Your task to perform on an android device: toggle translation in the chrome app Image 0: 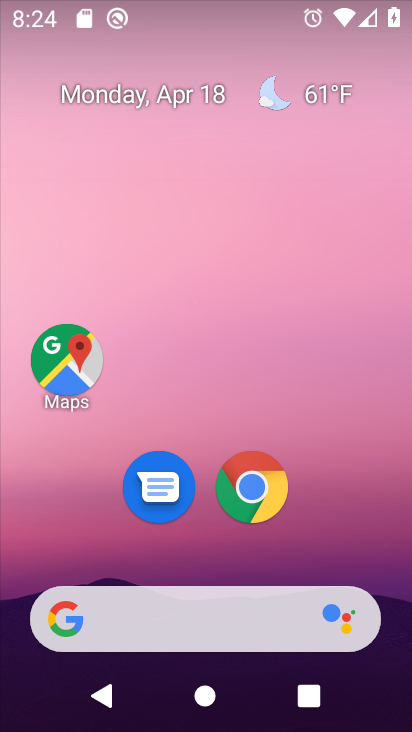
Step 0: click (248, 478)
Your task to perform on an android device: toggle translation in the chrome app Image 1: 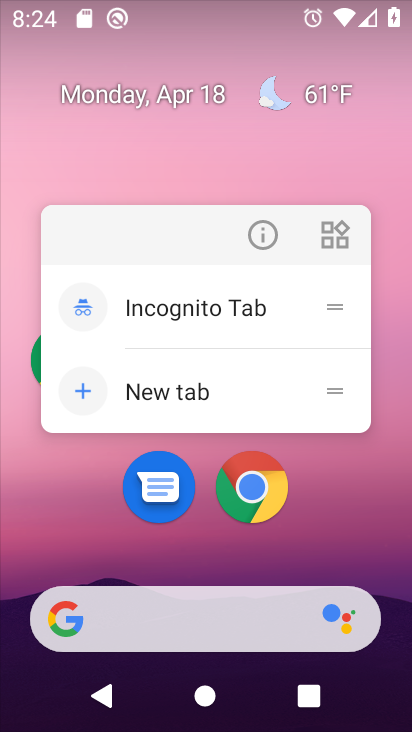
Step 1: click (306, 480)
Your task to perform on an android device: toggle translation in the chrome app Image 2: 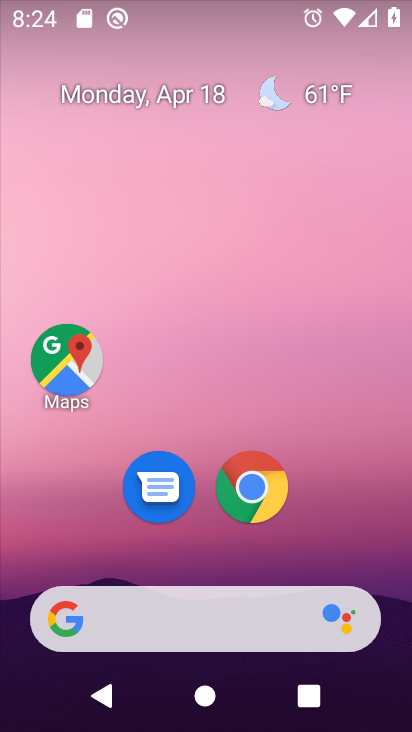
Step 2: click (375, 533)
Your task to perform on an android device: toggle translation in the chrome app Image 3: 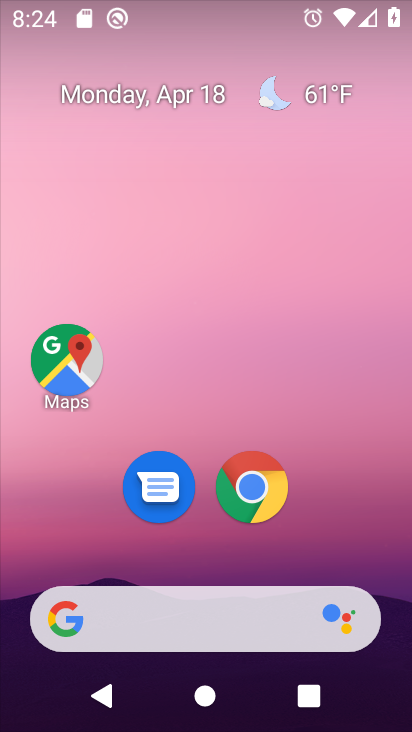
Step 3: click (250, 479)
Your task to perform on an android device: toggle translation in the chrome app Image 4: 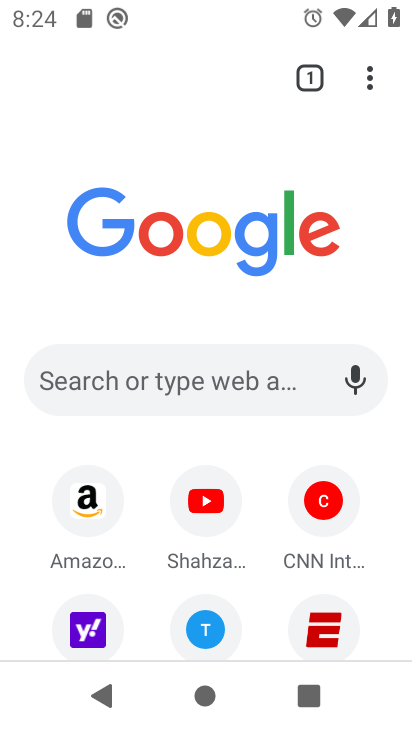
Step 4: click (367, 76)
Your task to perform on an android device: toggle translation in the chrome app Image 5: 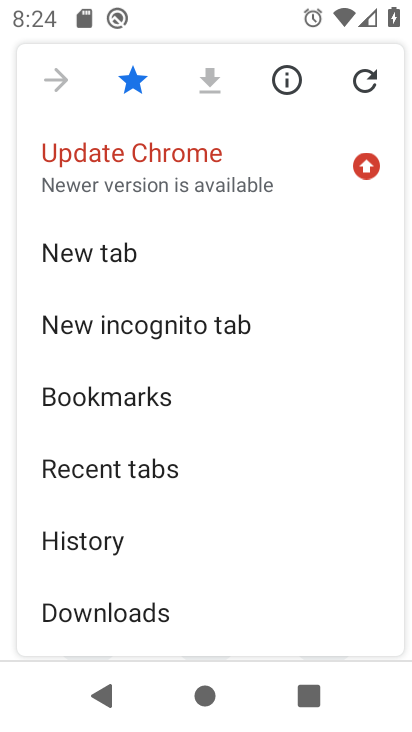
Step 5: drag from (191, 589) to (197, 47)
Your task to perform on an android device: toggle translation in the chrome app Image 6: 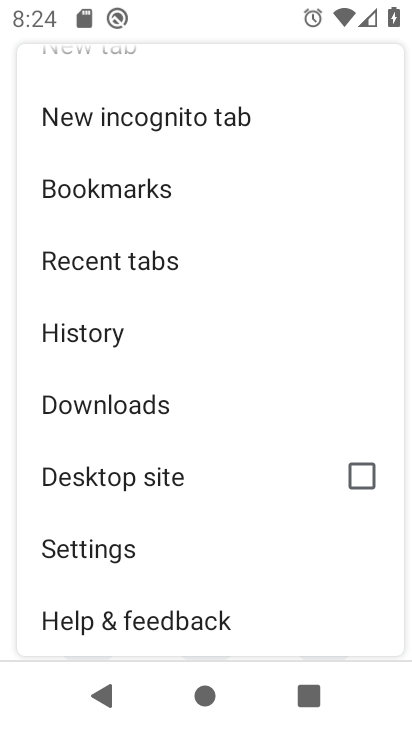
Step 6: click (149, 549)
Your task to perform on an android device: toggle translation in the chrome app Image 7: 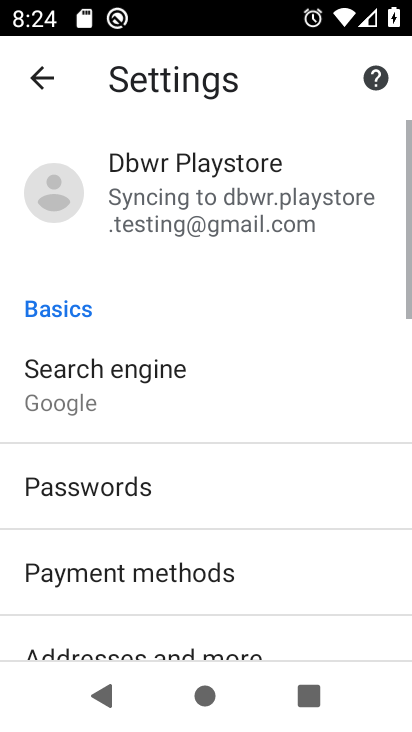
Step 7: drag from (213, 618) to (243, 101)
Your task to perform on an android device: toggle translation in the chrome app Image 8: 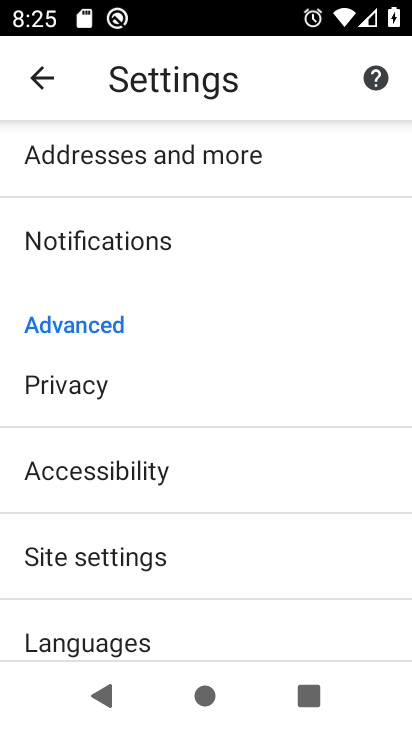
Step 8: click (192, 632)
Your task to perform on an android device: toggle translation in the chrome app Image 9: 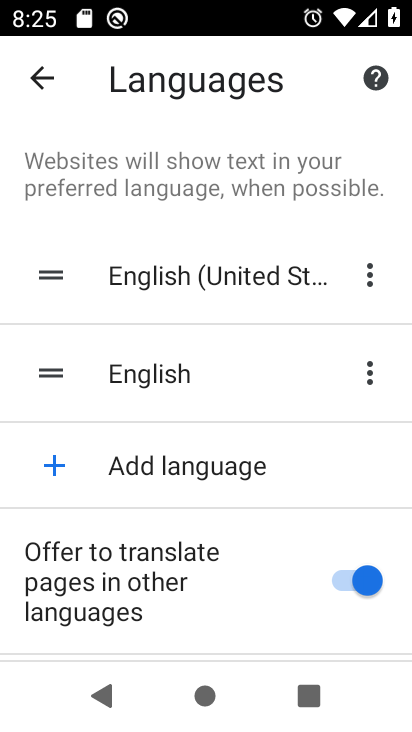
Step 9: click (346, 577)
Your task to perform on an android device: toggle translation in the chrome app Image 10: 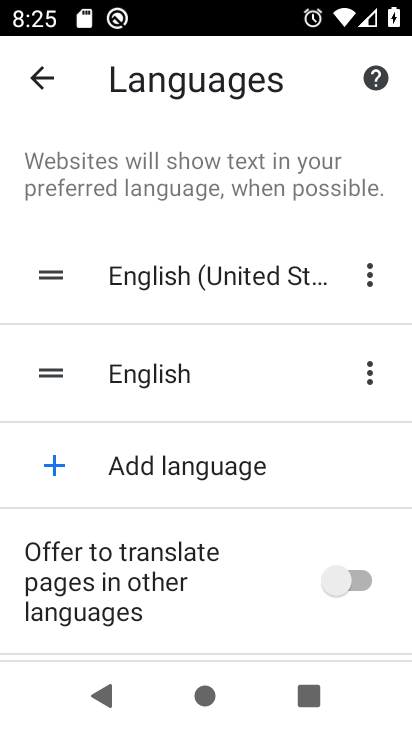
Step 10: task complete